Your task to perform on an android device: Open the stopwatch Image 0: 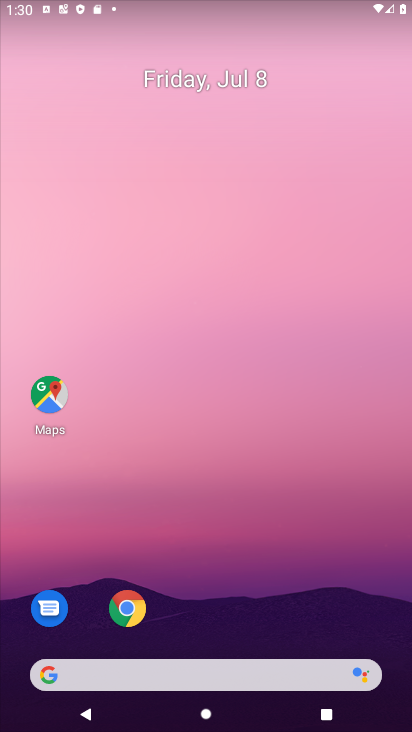
Step 0: drag from (382, 626) to (344, 101)
Your task to perform on an android device: Open the stopwatch Image 1: 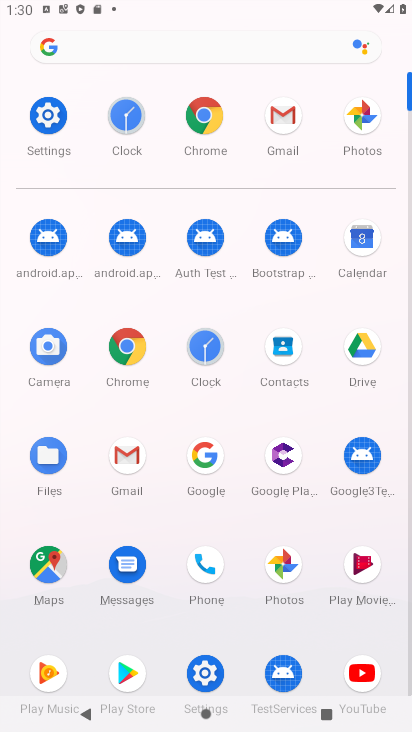
Step 1: click (201, 345)
Your task to perform on an android device: Open the stopwatch Image 2: 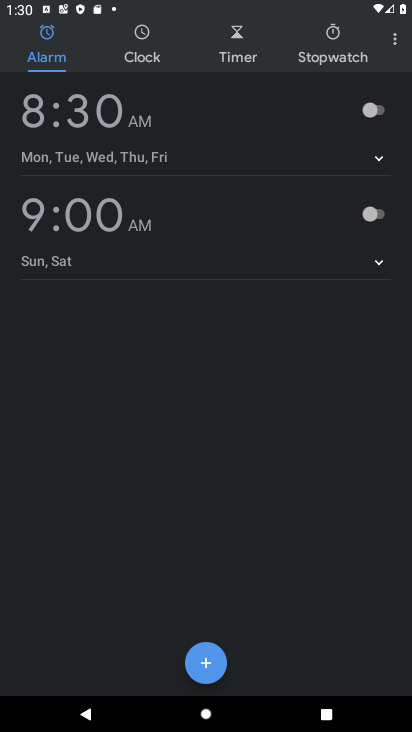
Step 2: click (347, 36)
Your task to perform on an android device: Open the stopwatch Image 3: 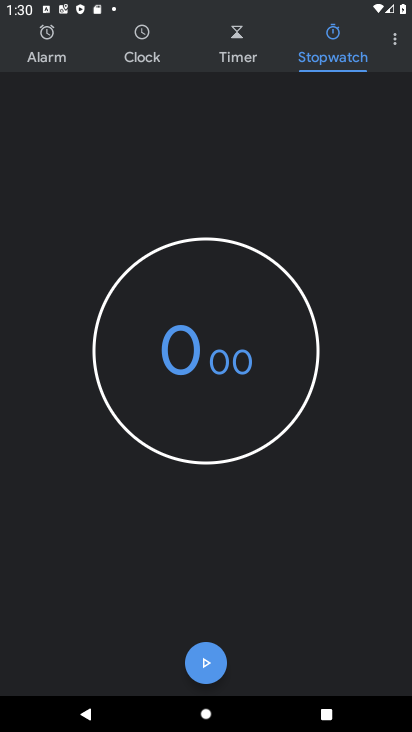
Step 3: task complete